Your task to perform on an android device: Open Chrome and go to the settings page Image 0: 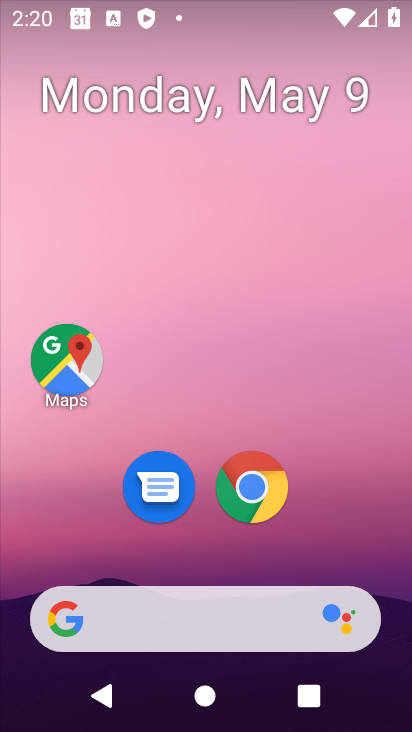
Step 0: drag from (340, 545) to (332, 140)
Your task to perform on an android device: Open Chrome and go to the settings page Image 1: 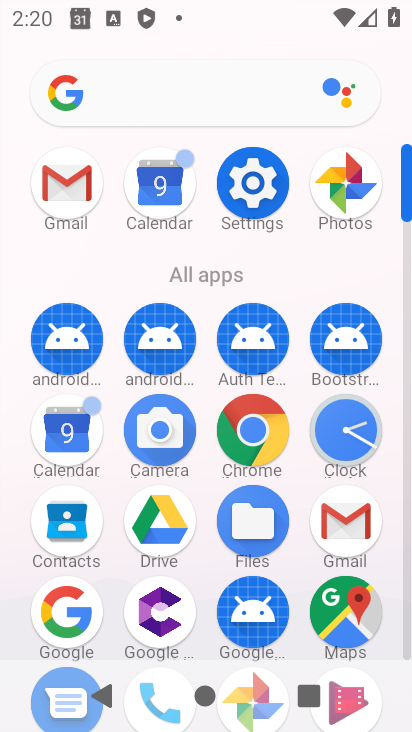
Step 1: click (256, 414)
Your task to perform on an android device: Open Chrome and go to the settings page Image 2: 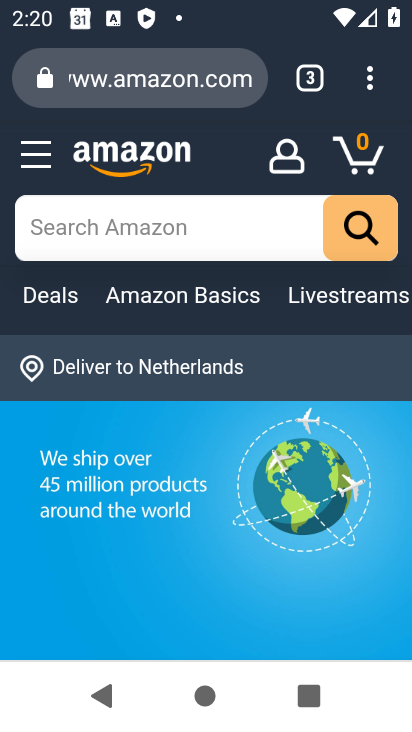
Step 2: click (367, 74)
Your task to perform on an android device: Open Chrome and go to the settings page Image 3: 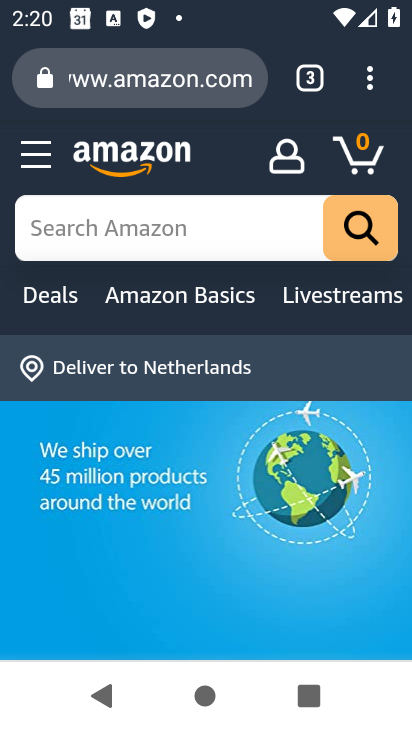
Step 3: click (367, 76)
Your task to perform on an android device: Open Chrome and go to the settings page Image 4: 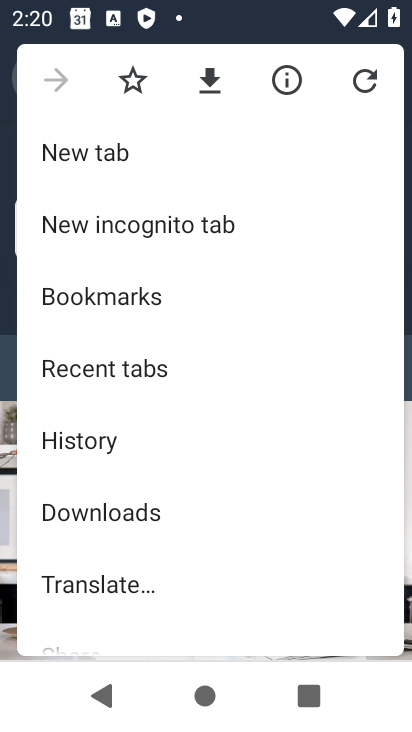
Step 4: drag from (214, 565) to (176, 236)
Your task to perform on an android device: Open Chrome and go to the settings page Image 5: 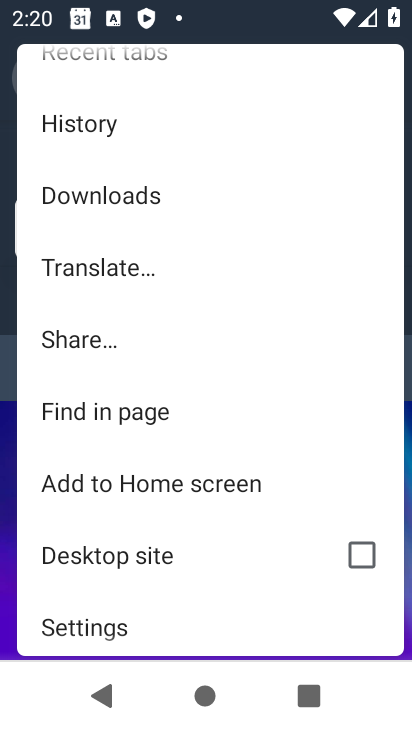
Step 5: click (139, 613)
Your task to perform on an android device: Open Chrome and go to the settings page Image 6: 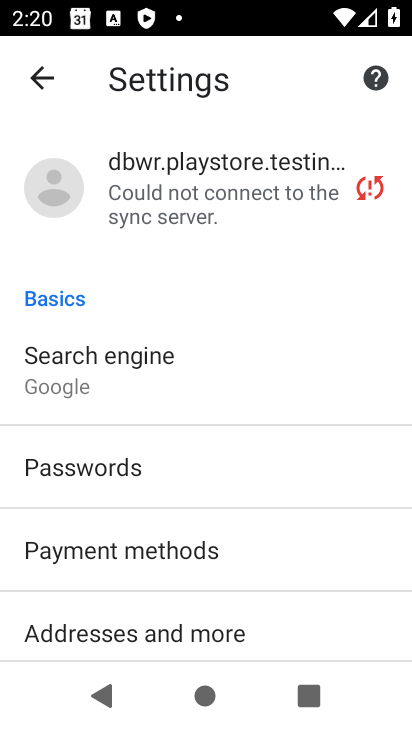
Step 6: task complete